Your task to perform on an android device: Open accessibility settings Image 0: 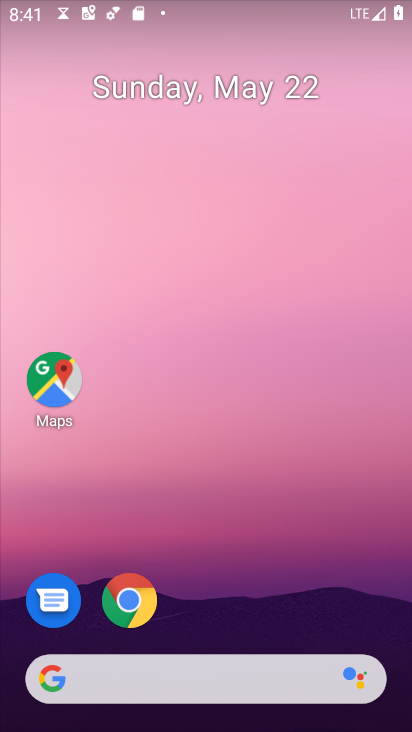
Step 0: drag from (184, 608) to (216, 368)
Your task to perform on an android device: Open accessibility settings Image 1: 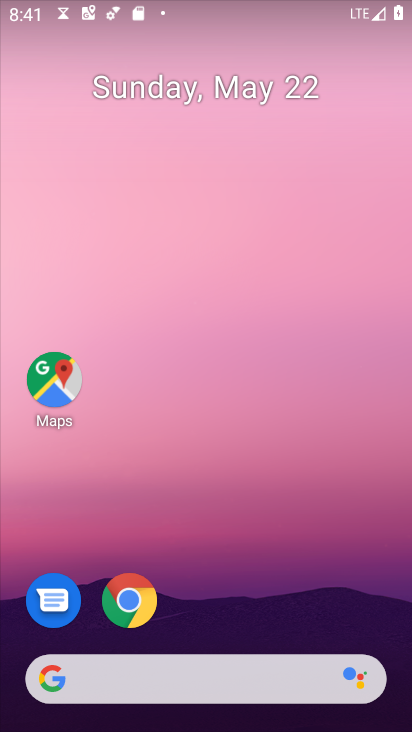
Step 1: drag from (229, 586) to (222, 180)
Your task to perform on an android device: Open accessibility settings Image 2: 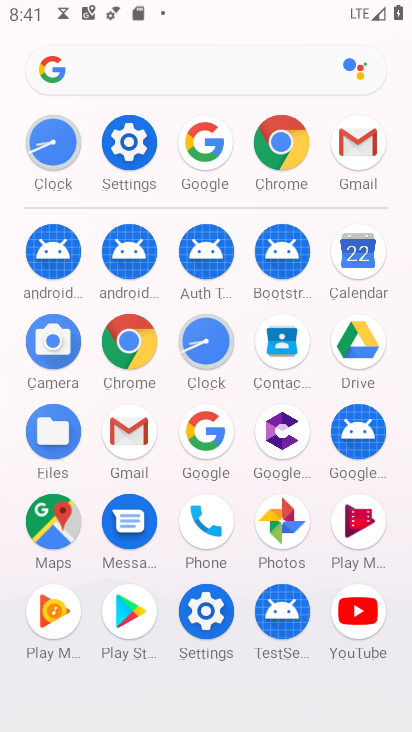
Step 2: click (137, 164)
Your task to perform on an android device: Open accessibility settings Image 3: 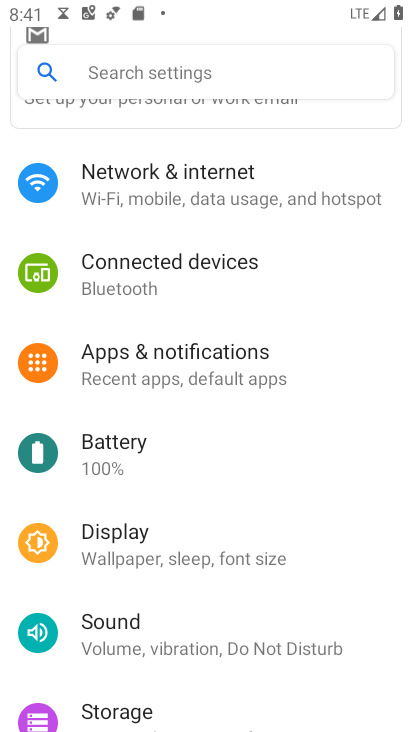
Step 3: drag from (178, 661) to (258, 243)
Your task to perform on an android device: Open accessibility settings Image 4: 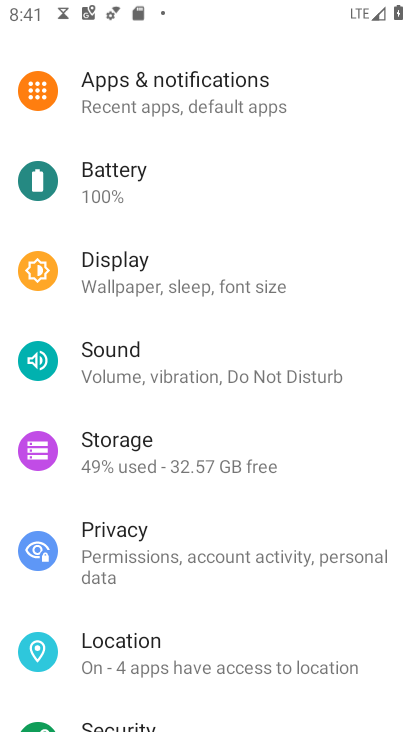
Step 4: drag from (118, 690) to (216, 267)
Your task to perform on an android device: Open accessibility settings Image 5: 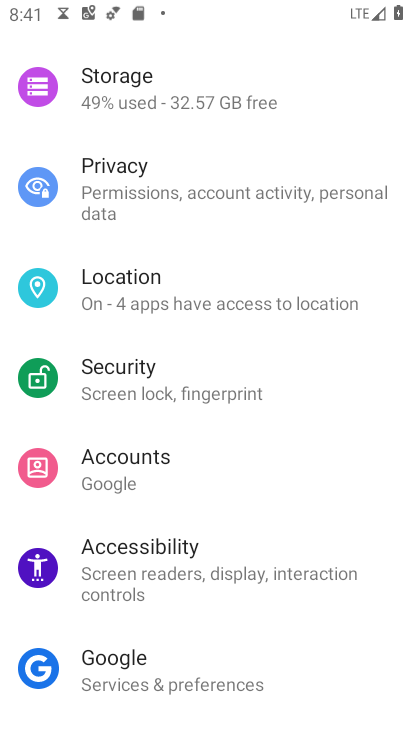
Step 5: click (185, 560)
Your task to perform on an android device: Open accessibility settings Image 6: 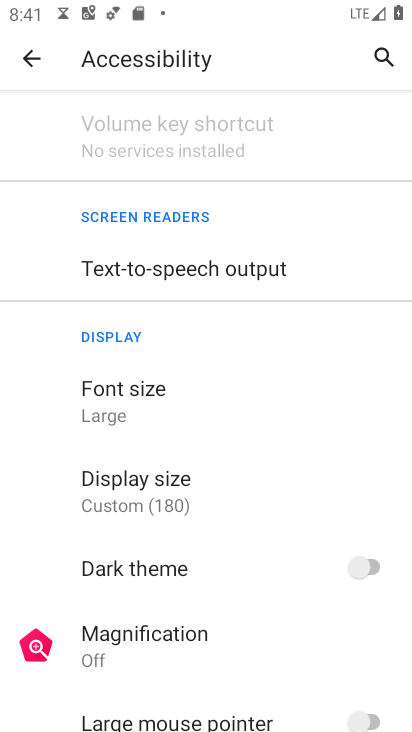
Step 6: task complete